Your task to perform on an android device: Open the Play Movies app and select the watchlist tab. Image 0: 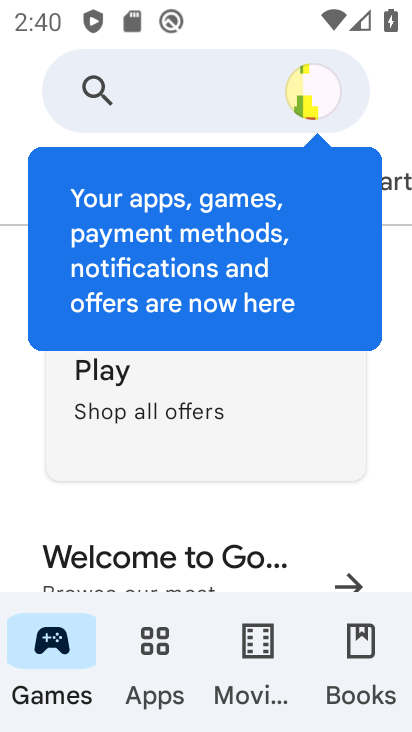
Step 0: press home button
Your task to perform on an android device: Open the Play Movies app and select the watchlist tab. Image 1: 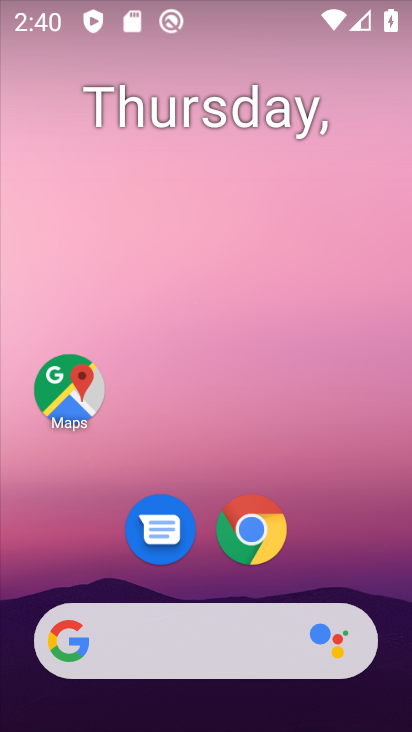
Step 1: drag from (189, 567) to (247, 198)
Your task to perform on an android device: Open the Play Movies app and select the watchlist tab. Image 2: 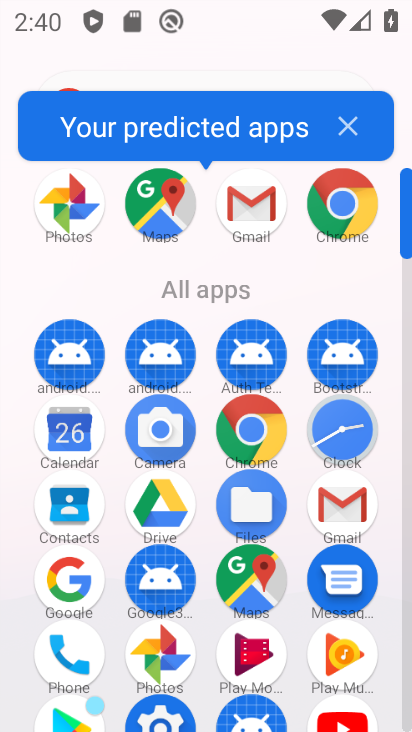
Step 2: click (250, 654)
Your task to perform on an android device: Open the Play Movies app and select the watchlist tab. Image 3: 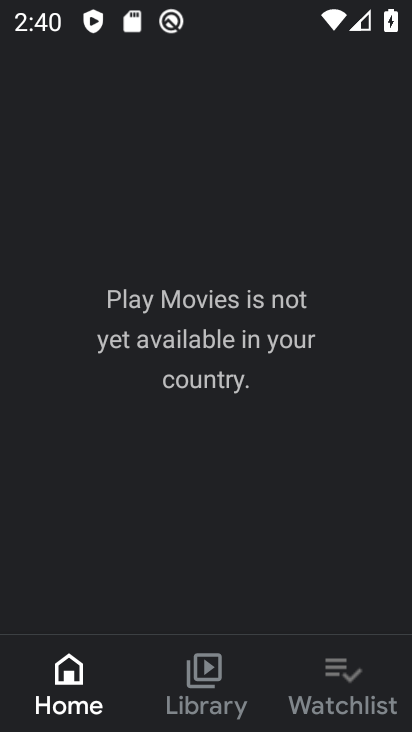
Step 3: click (313, 696)
Your task to perform on an android device: Open the Play Movies app and select the watchlist tab. Image 4: 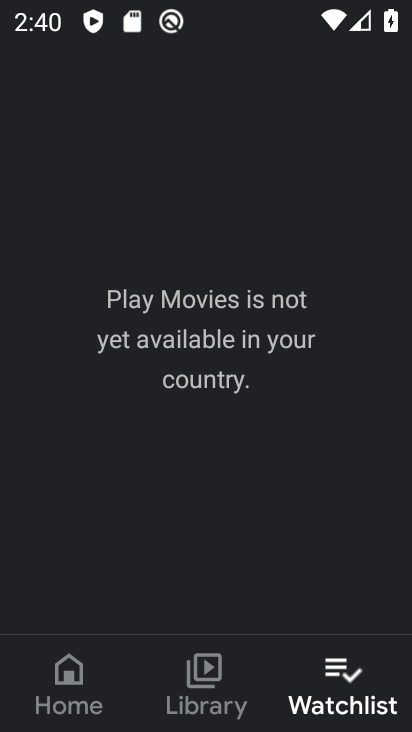
Step 4: task complete